Your task to perform on an android device: all mails in gmail Image 0: 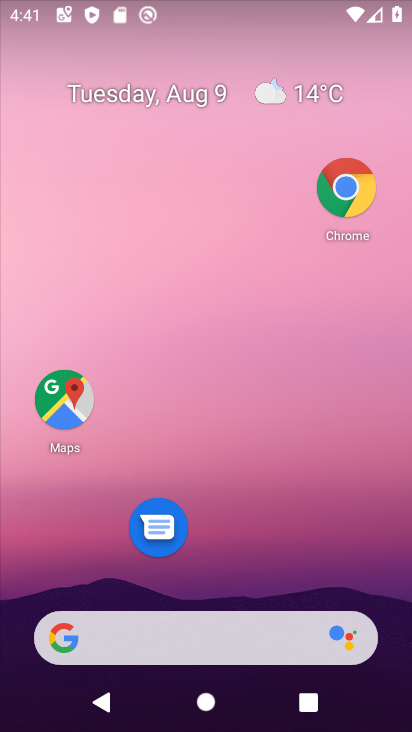
Step 0: drag from (231, 602) to (208, 136)
Your task to perform on an android device: all mails in gmail Image 1: 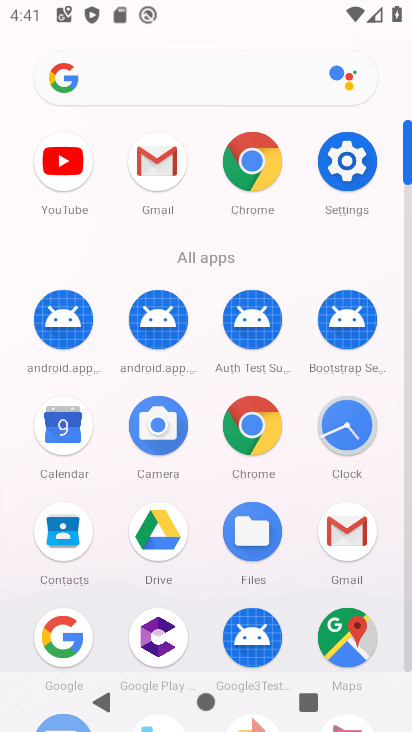
Step 1: click (175, 164)
Your task to perform on an android device: all mails in gmail Image 2: 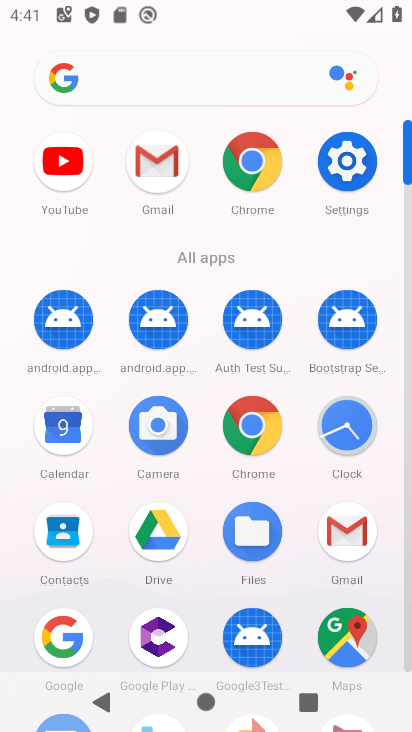
Step 2: click (175, 164)
Your task to perform on an android device: all mails in gmail Image 3: 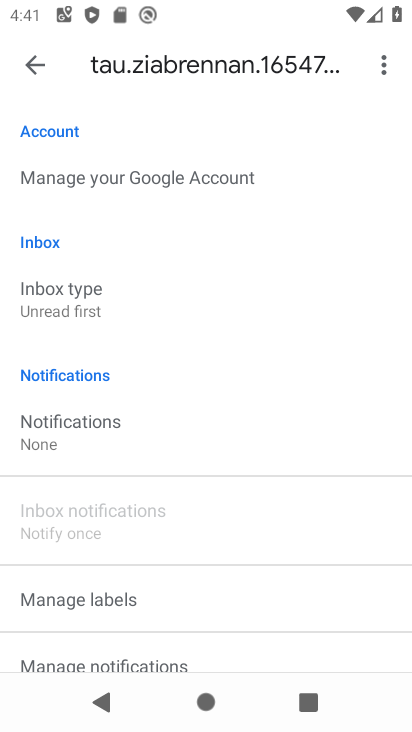
Step 3: drag from (137, 509) to (192, 229)
Your task to perform on an android device: all mails in gmail Image 4: 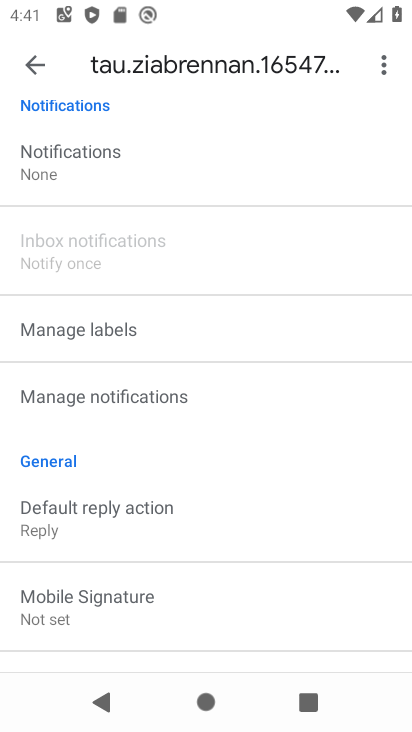
Step 4: drag from (203, 636) to (201, 475)
Your task to perform on an android device: all mails in gmail Image 5: 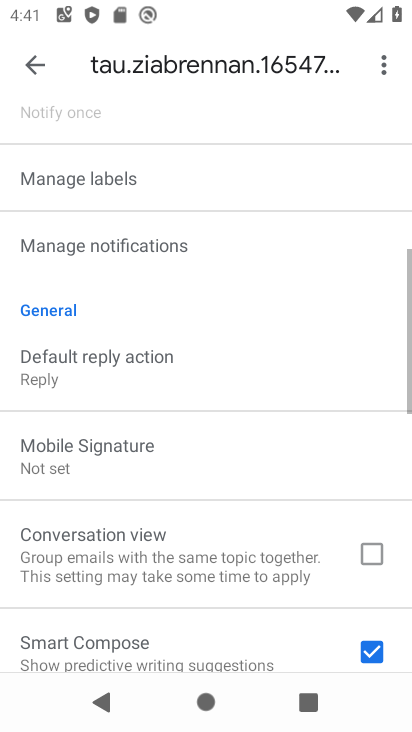
Step 5: click (201, 475)
Your task to perform on an android device: all mails in gmail Image 6: 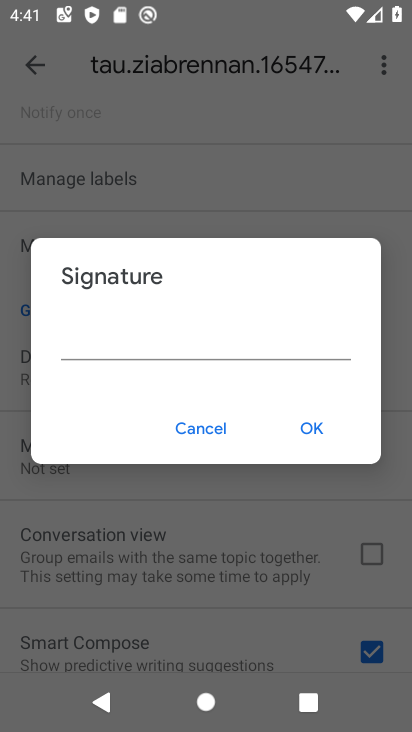
Step 6: click (197, 209)
Your task to perform on an android device: all mails in gmail Image 7: 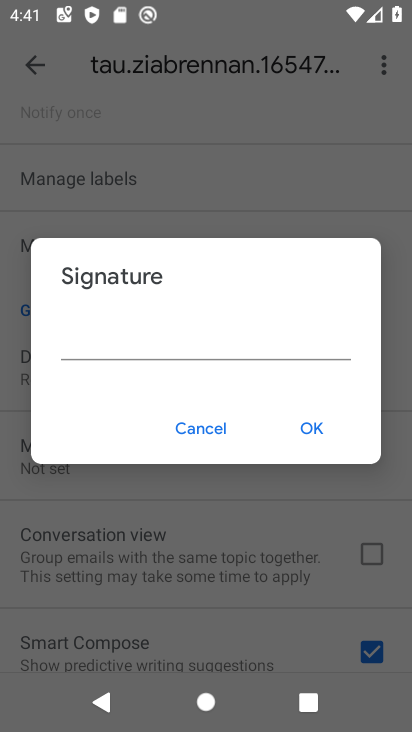
Step 7: click (39, 67)
Your task to perform on an android device: all mails in gmail Image 8: 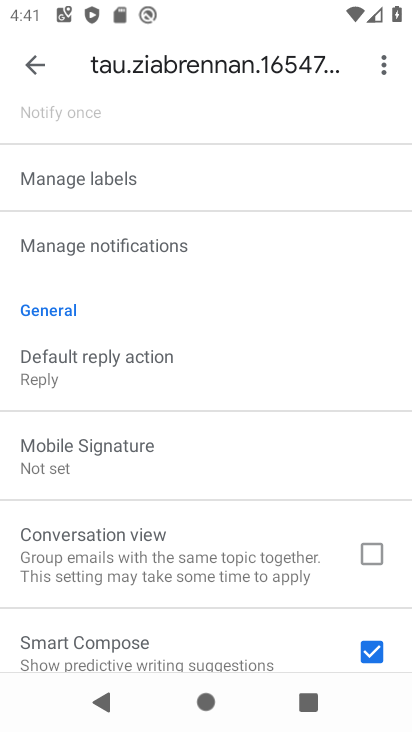
Step 8: click (37, 72)
Your task to perform on an android device: all mails in gmail Image 9: 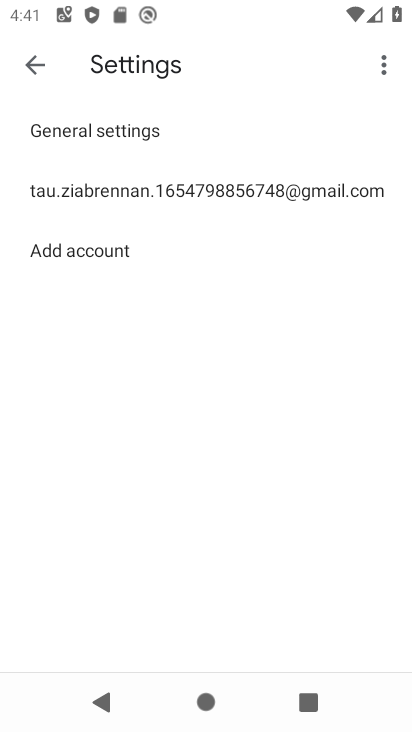
Step 9: click (37, 74)
Your task to perform on an android device: all mails in gmail Image 10: 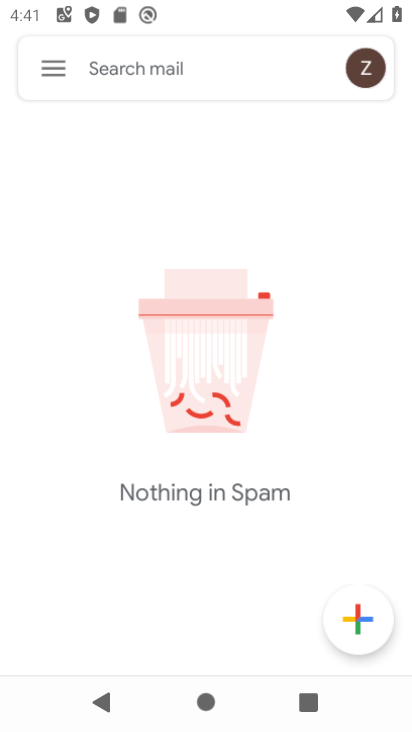
Step 10: click (37, 74)
Your task to perform on an android device: all mails in gmail Image 11: 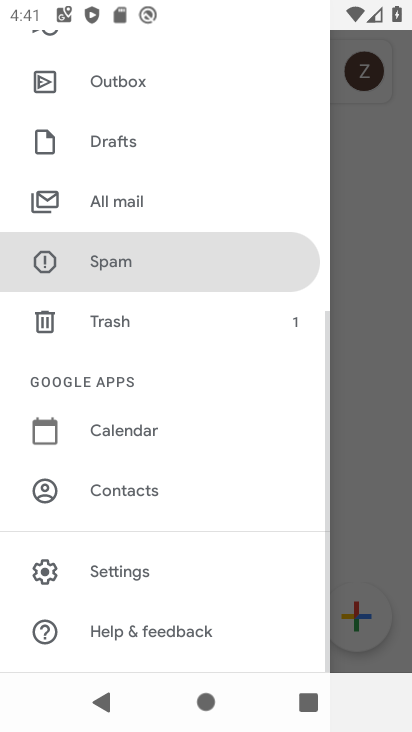
Step 11: click (37, 74)
Your task to perform on an android device: all mails in gmail Image 12: 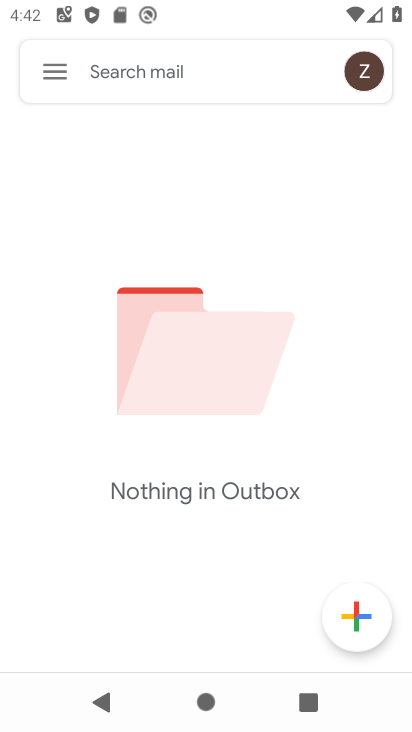
Step 12: click (57, 70)
Your task to perform on an android device: all mails in gmail Image 13: 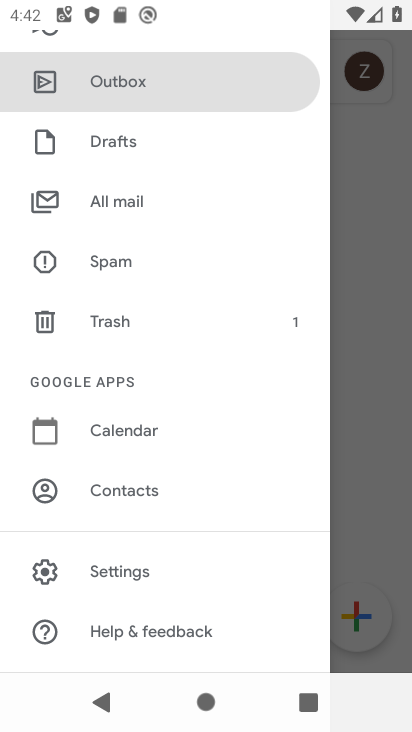
Step 13: click (140, 208)
Your task to perform on an android device: all mails in gmail Image 14: 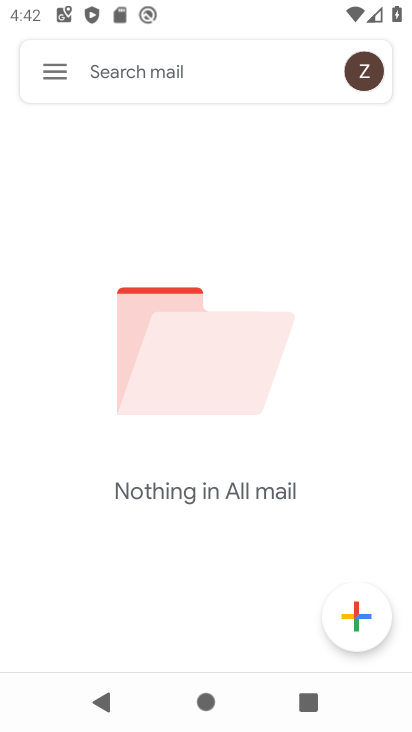
Step 14: task complete